Your task to perform on an android device: Go to Yahoo.com Image 0: 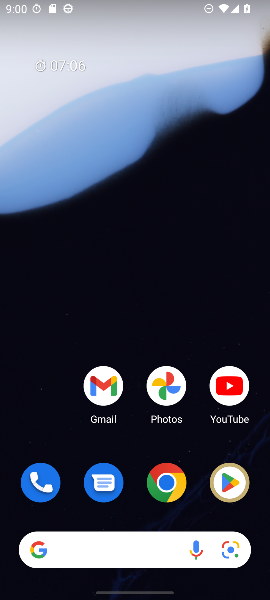
Step 0: press home button
Your task to perform on an android device: Go to Yahoo.com Image 1: 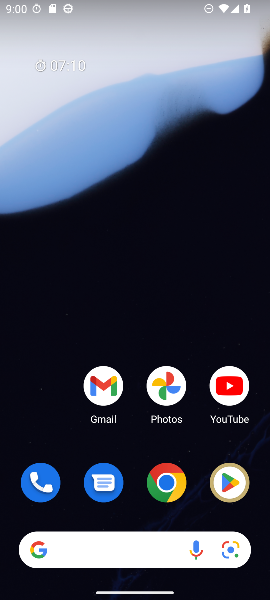
Step 1: click (164, 478)
Your task to perform on an android device: Go to Yahoo.com Image 2: 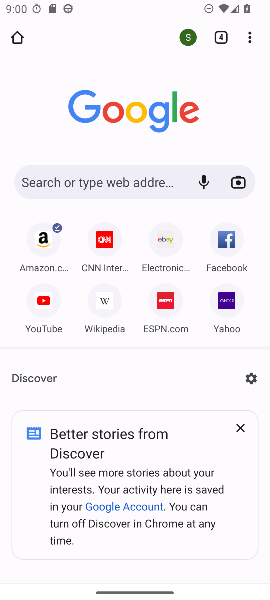
Step 2: click (225, 294)
Your task to perform on an android device: Go to Yahoo.com Image 3: 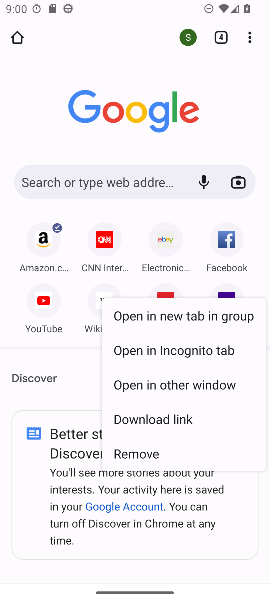
Step 3: click (228, 292)
Your task to perform on an android device: Go to Yahoo.com Image 4: 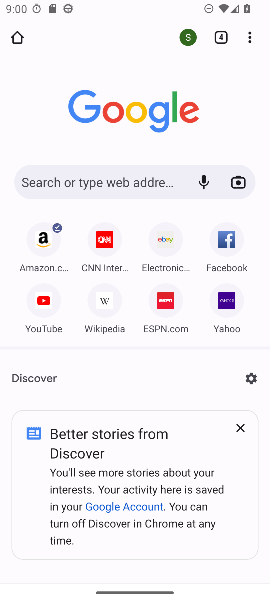
Step 4: click (227, 294)
Your task to perform on an android device: Go to Yahoo.com Image 5: 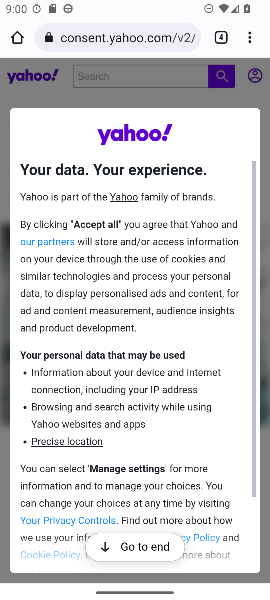
Step 5: click (134, 541)
Your task to perform on an android device: Go to Yahoo.com Image 6: 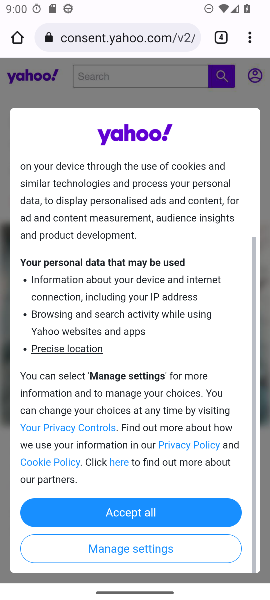
Step 6: click (136, 507)
Your task to perform on an android device: Go to Yahoo.com Image 7: 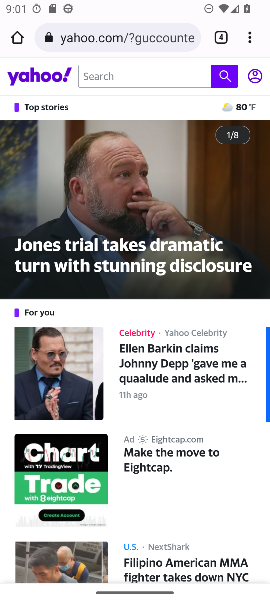
Step 7: task complete